Your task to perform on an android device: Open the stopwatch Image 0: 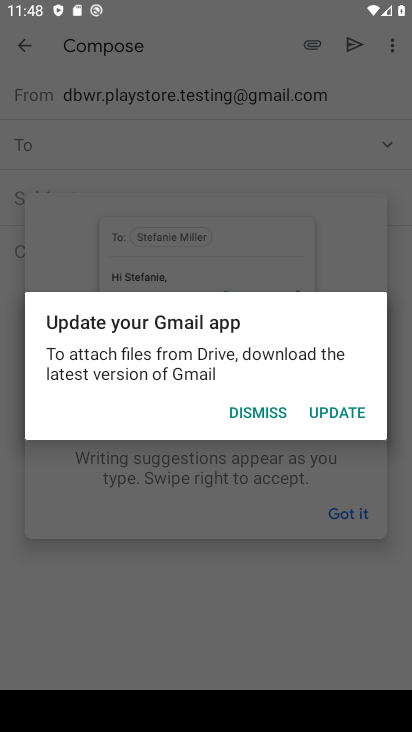
Step 0: press home button
Your task to perform on an android device: Open the stopwatch Image 1: 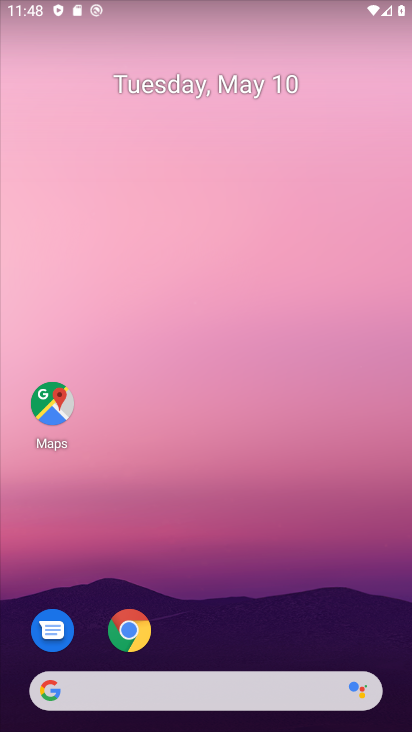
Step 1: drag from (212, 671) to (150, 23)
Your task to perform on an android device: Open the stopwatch Image 2: 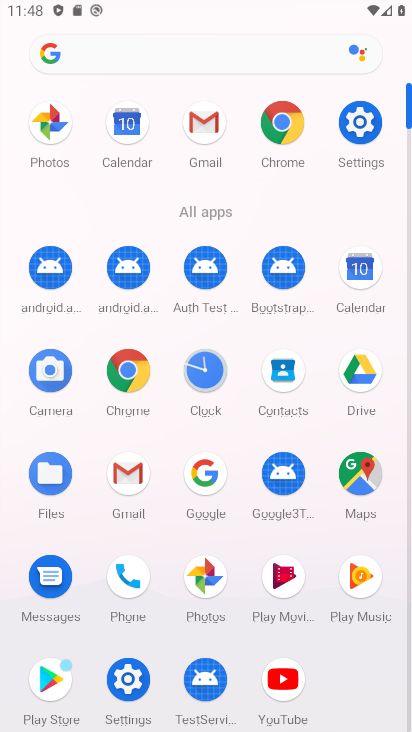
Step 2: click (190, 384)
Your task to perform on an android device: Open the stopwatch Image 3: 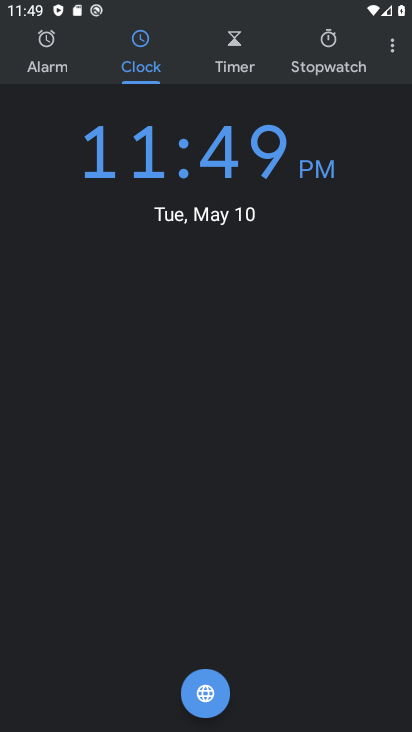
Step 3: click (299, 34)
Your task to perform on an android device: Open the stopwatch Image 4: 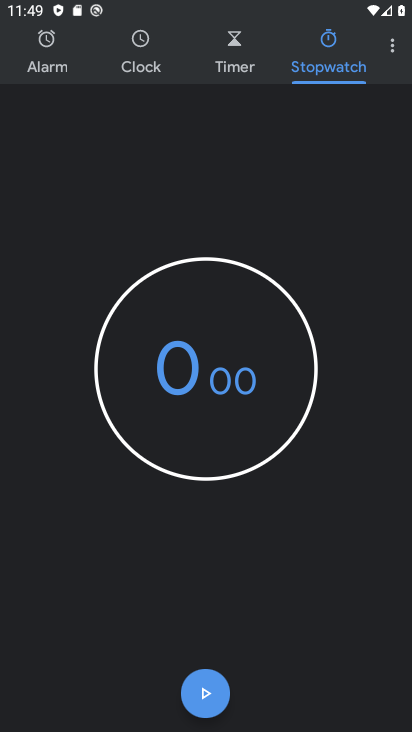
Step 4: task complete